Your task to perform on an android device: Open my contact list Image 0: 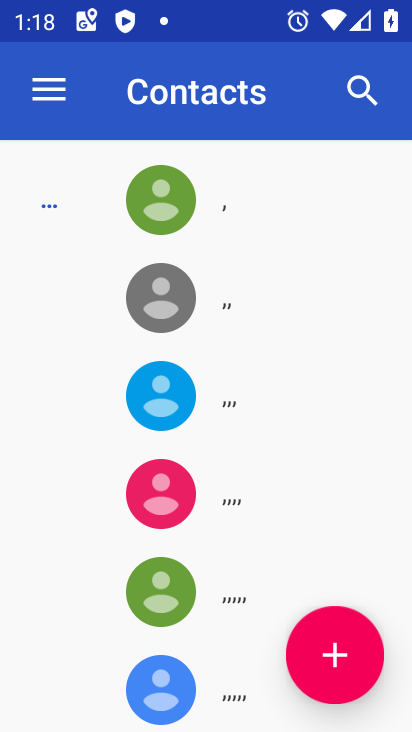
Step 0: press home button
Your task to perform on an android device: Open my contact list Image 1: 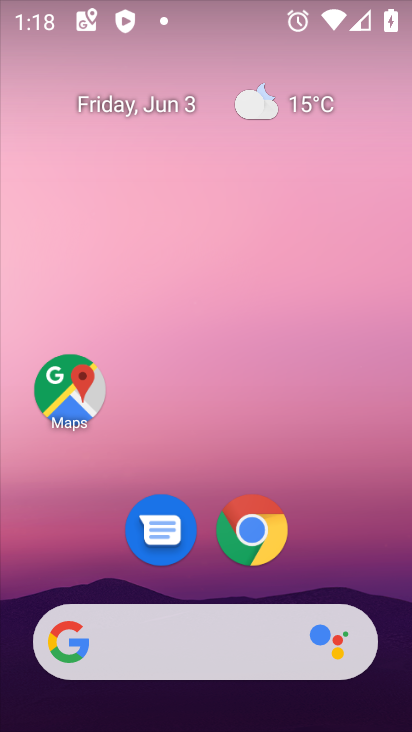
Step 1: drag from (347, 536) to (341, 195)
Your task to perform on an android device: Open my contact list Image 2: 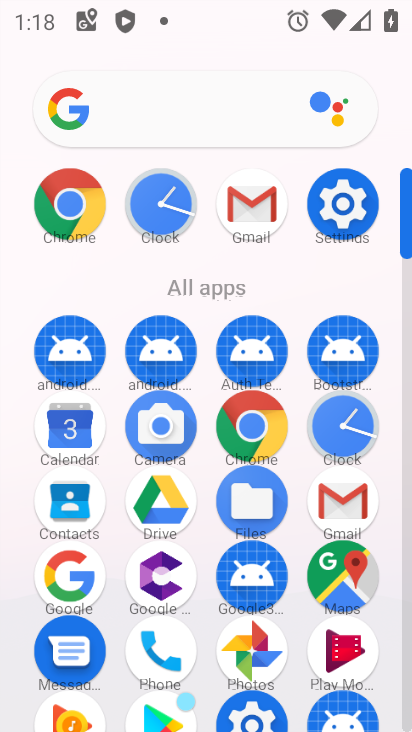
Step 2: click (65, 512)
Your task to perform on an android device: Open my contact list Image 3: 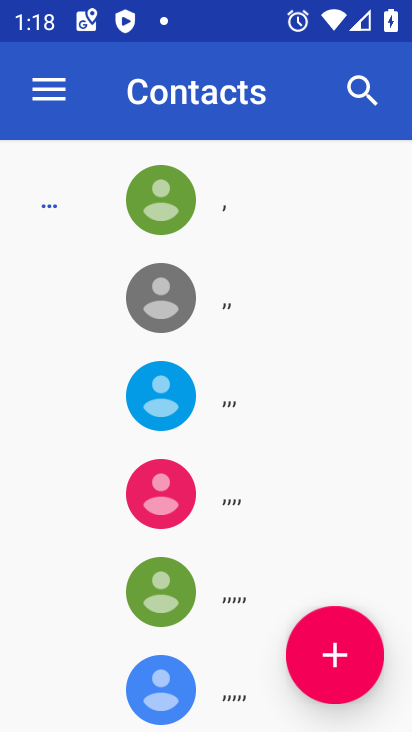
Step 3: task complete